Your task to perform on an android device: turn notification dots on Image 0: 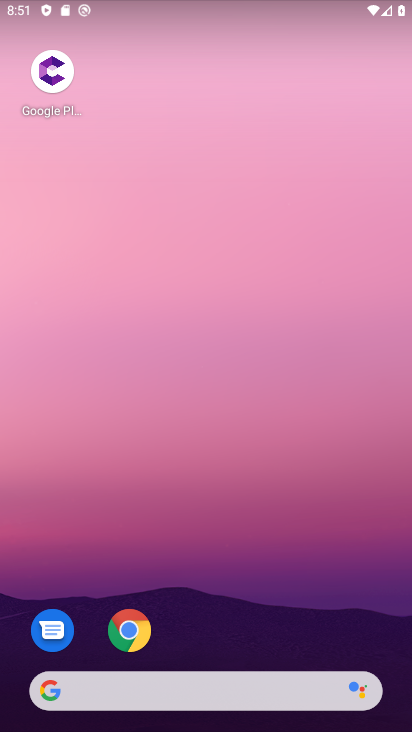
Step 0: drag from (225, 610) to (211, 63)
Your task to perform on an android device: turn notification dots on Image 1: 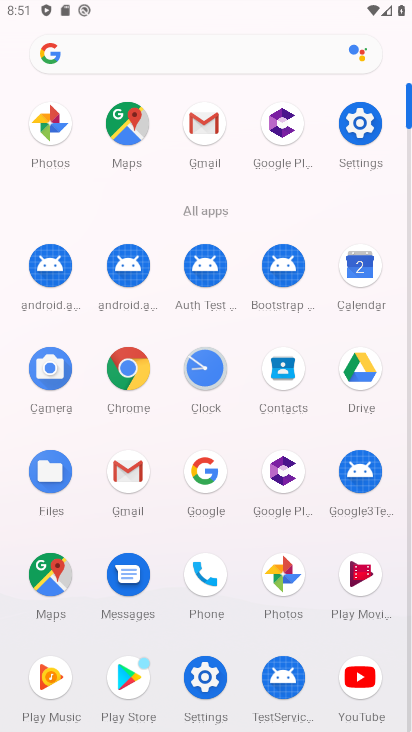
Step 1: click (358, 122)
Your task to perform on an android device: turn notification dots on Image 2: 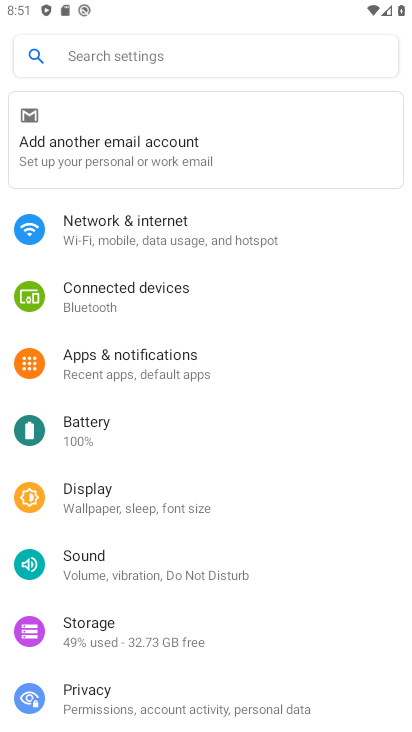
Step 2: click (144, 369)
Your task to perform on an android device: turn notification dots on Image 3: 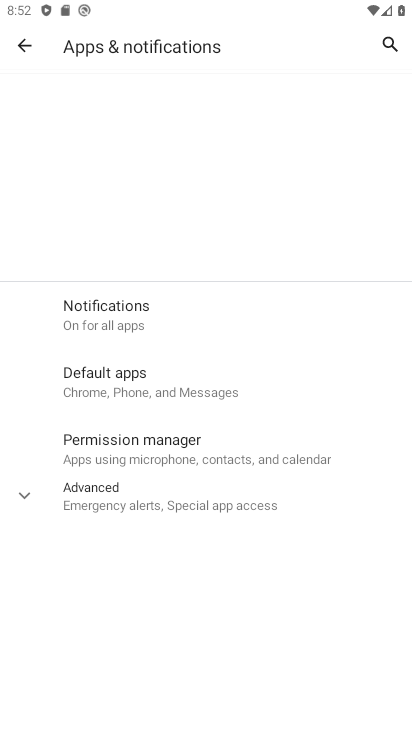
Step 3: click (106, 321)
Your task to perform on an android device: turn notification dots on Image 4: 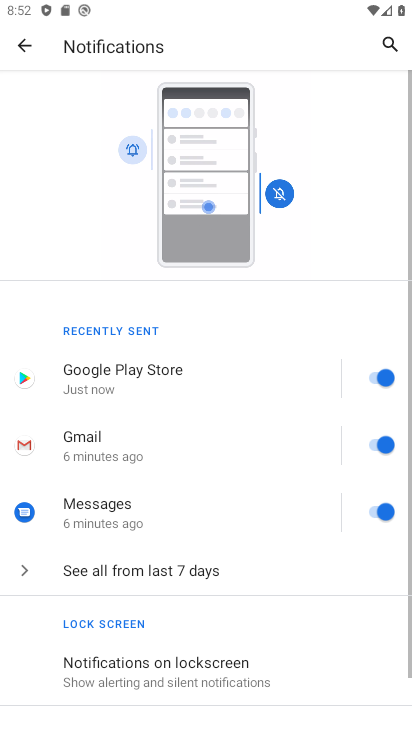
Step 4: drag from (222, 498) to (219, 68)
Your task to perform on an android device: turn notification dots on Image 5: 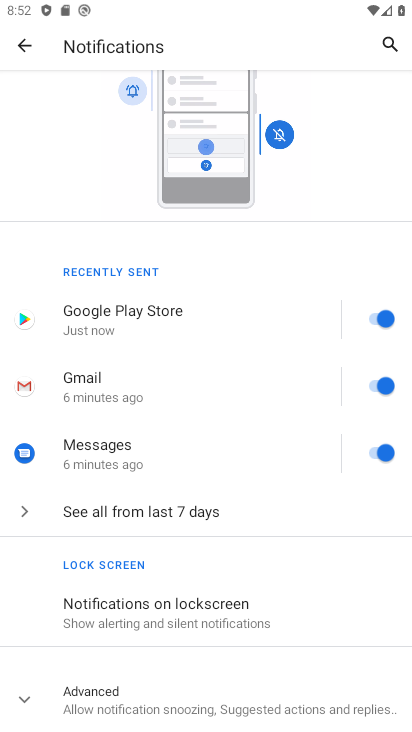
Step 5: click (112, 703)
Your task to perform on an android device: turn notification dots on Image 6: 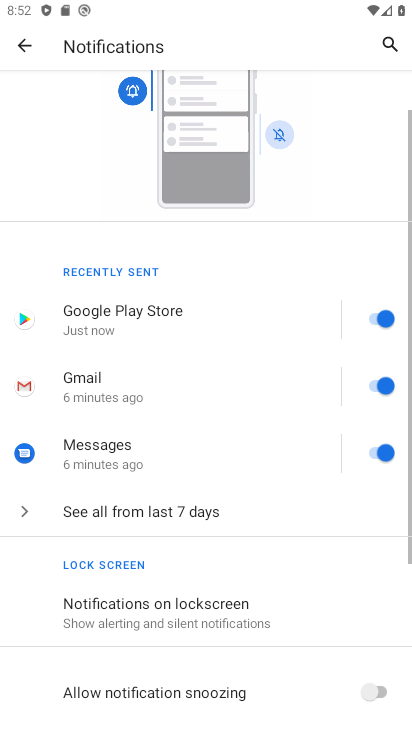
Step 6: drag from (238, 617) to (225, 162)
Your task to perform on an android device: turn notification dots on Image 7: 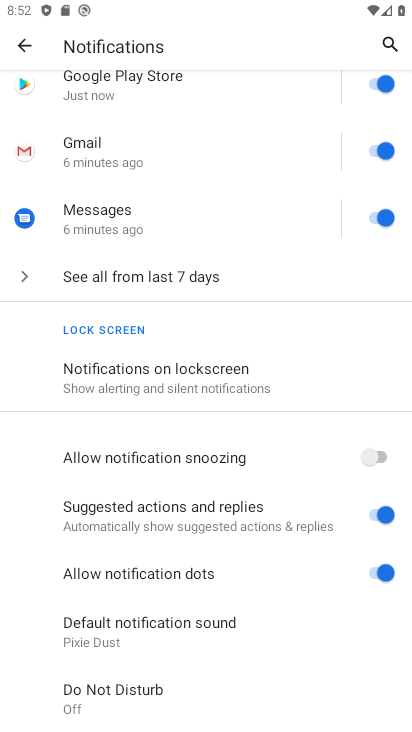
Step 7: click (377, 567)
Your task to perform on an android device: turn notification dots on Image 8: 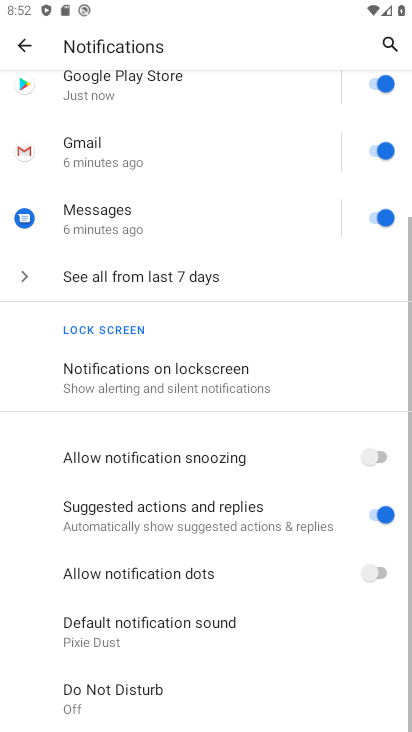
Step 8: click (377, 567)
Your task to perform on an android device: turn notification dots on Image 9: 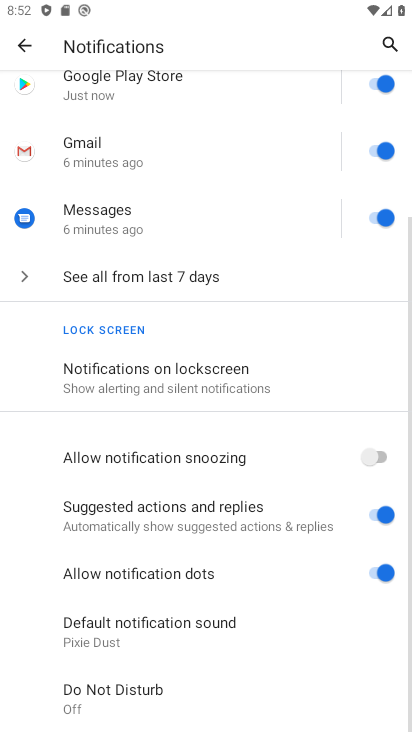
Step 9: task complete